Your task to perform on an android device: turn on bluetooth scan Image 0: 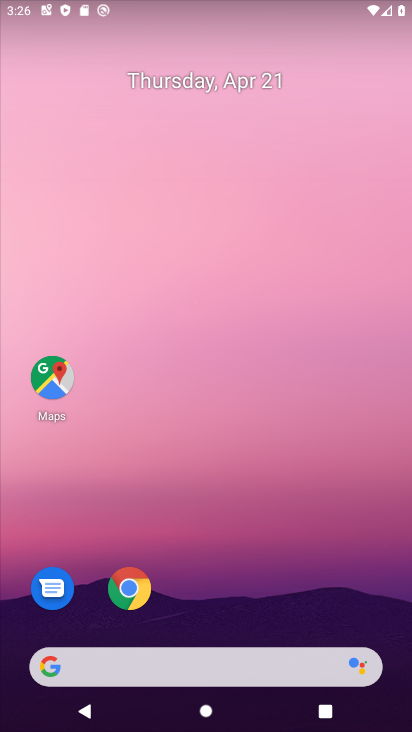
Step 0: drag from (248, 620) to (167, 98)
Your task to perform on an android device: turn on bluetooth scan Image 1: 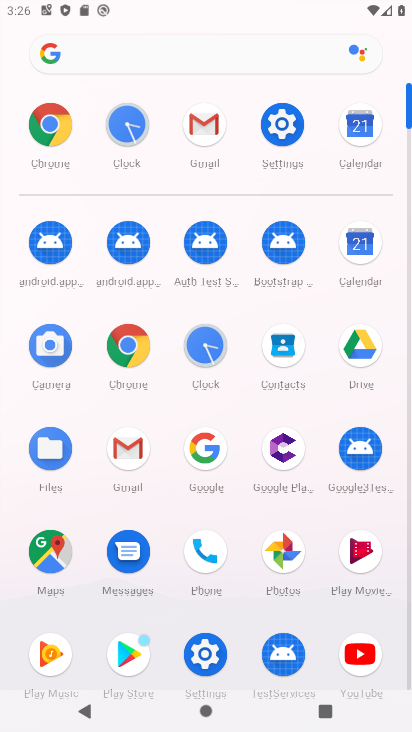
Step 1: click (285, 132)
Your task to perform on an android device: turn on bluetooth scan Image 2: 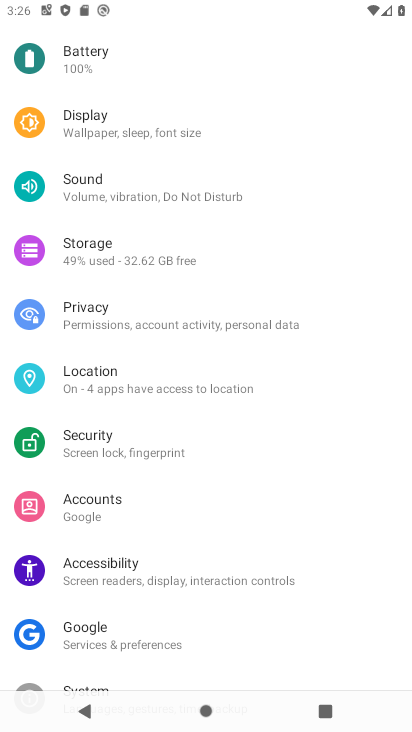
Step 2: click (159, 137)
Your task to perform on an android device: turn on bluetooth scan Image 3: 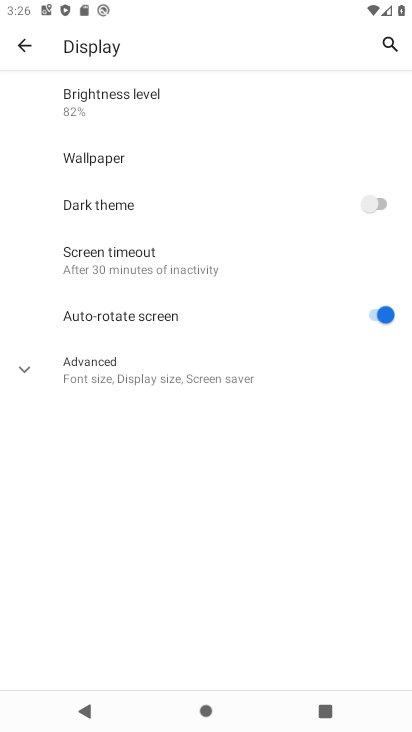
Step 3: click (160, 377)
Your task to perform on an android device: turn on bluetooth scan Image 4: 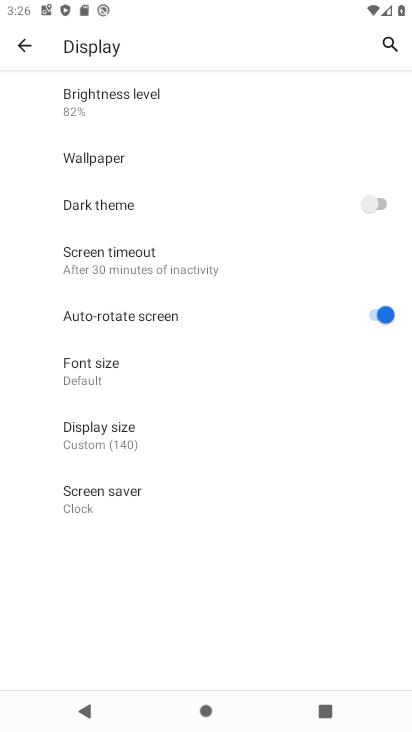
Step 4: task complete